Your task to perform on an android device: change alarm snooze length Image 0: 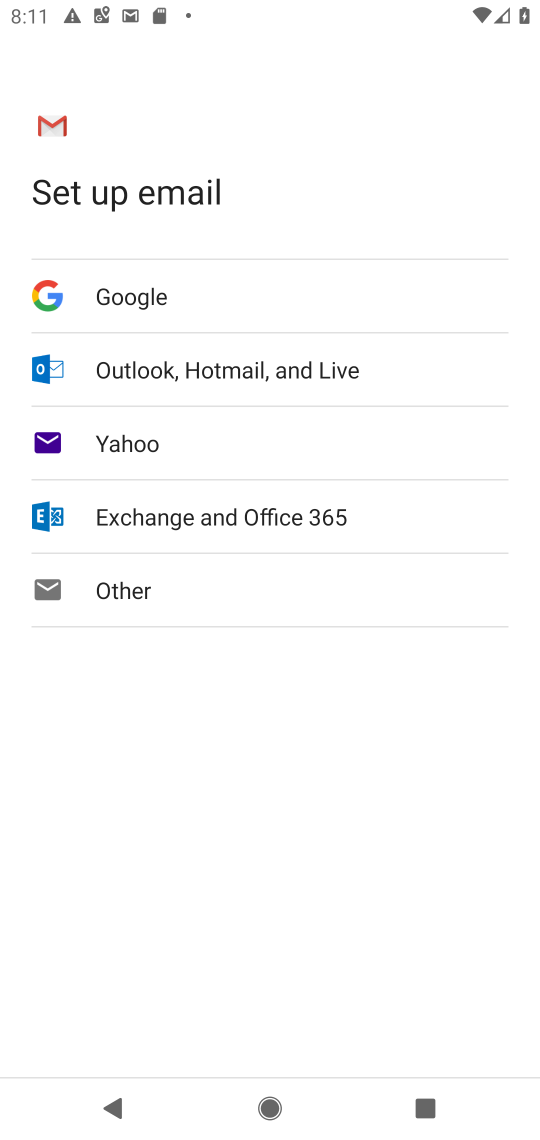
Step 0: press home button
Your task to perform on an android device: change alarm snooze length Image 1: 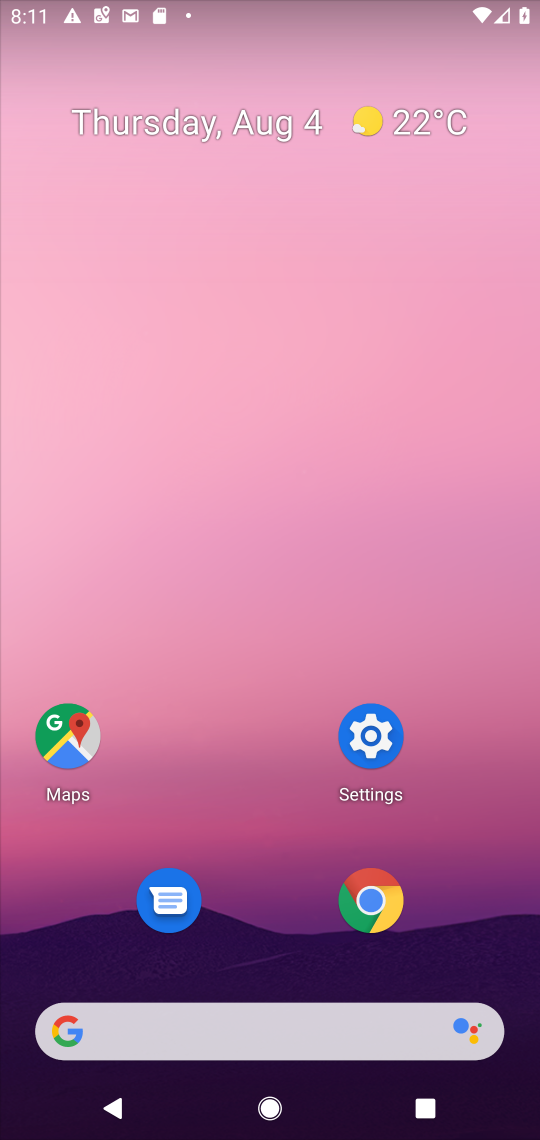
Step 1: drag from (200, 1030) to (436, 137)
Your task to perform on an android device: change alarm snooze length Image 2: 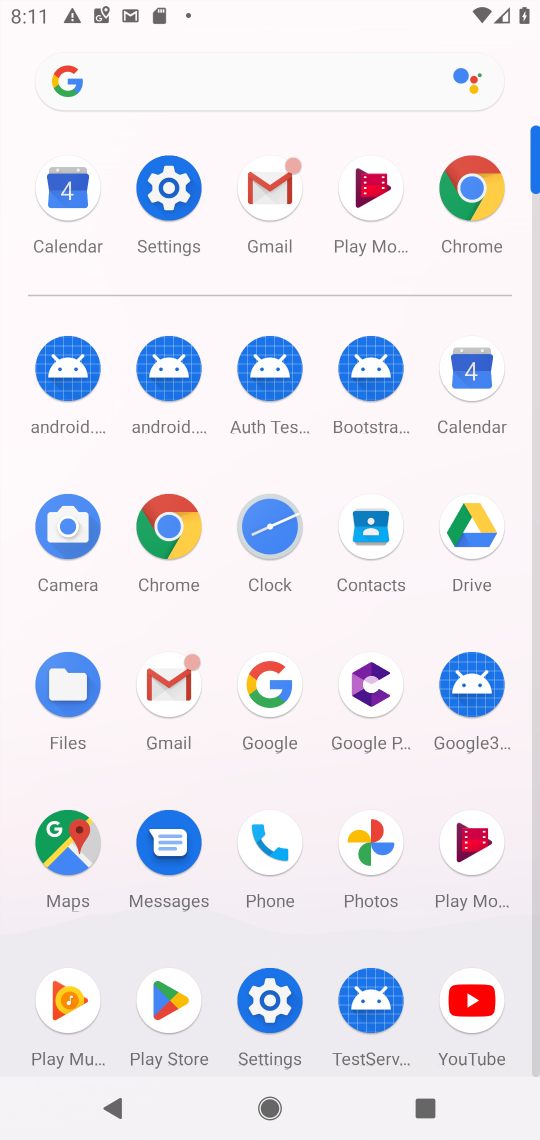
Step 2: click (280, 529)
Your task to perform on an android device: change alarm snooze length Image 3: 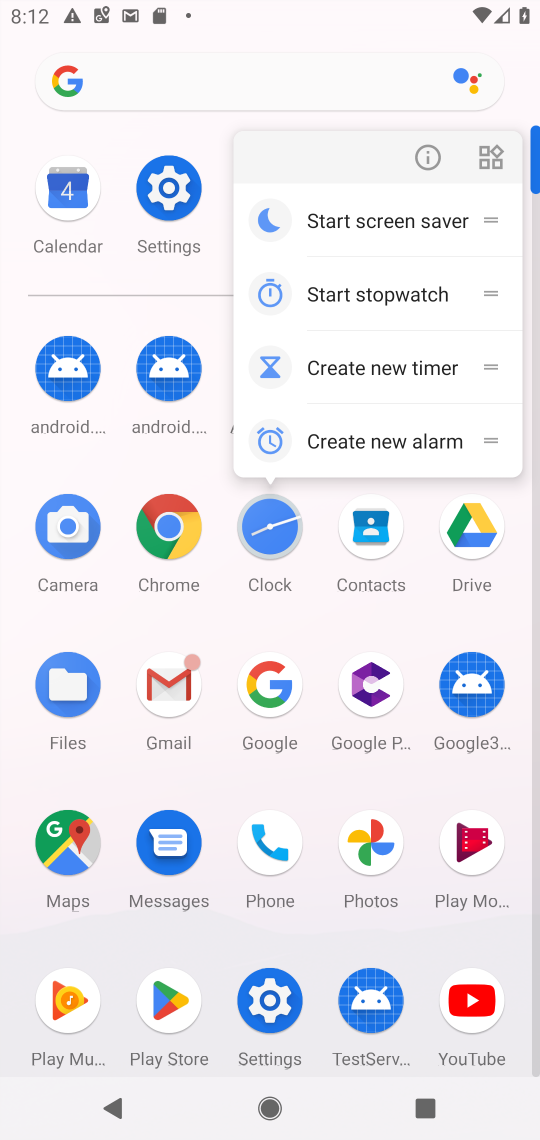
Step 3: click (280, 528)
Your task to perform on an android device: change alarm snooze length Image 4: 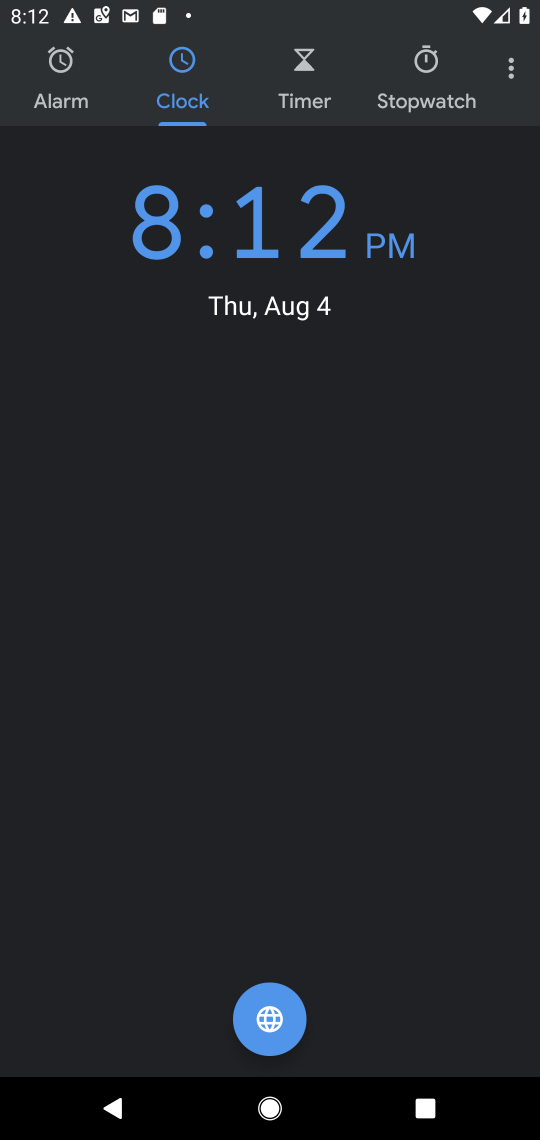
Step 4: click (508, 70)
Your task to perform on an android device: change alarm snooze length Image 5: 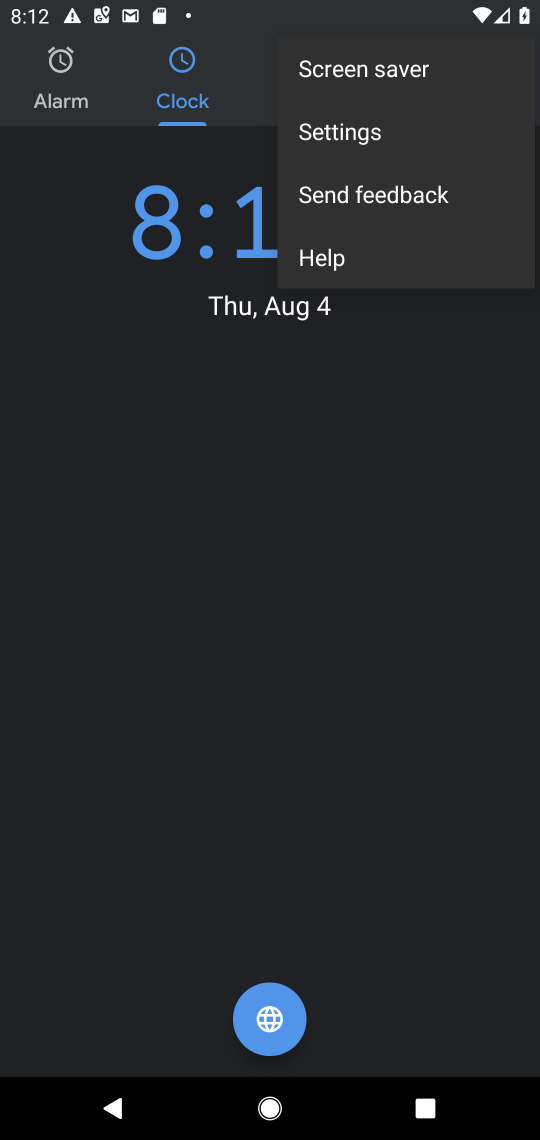
Step 5: click (339, 133)
Your task to perform on an android device: change alarm snooze length Image 6: 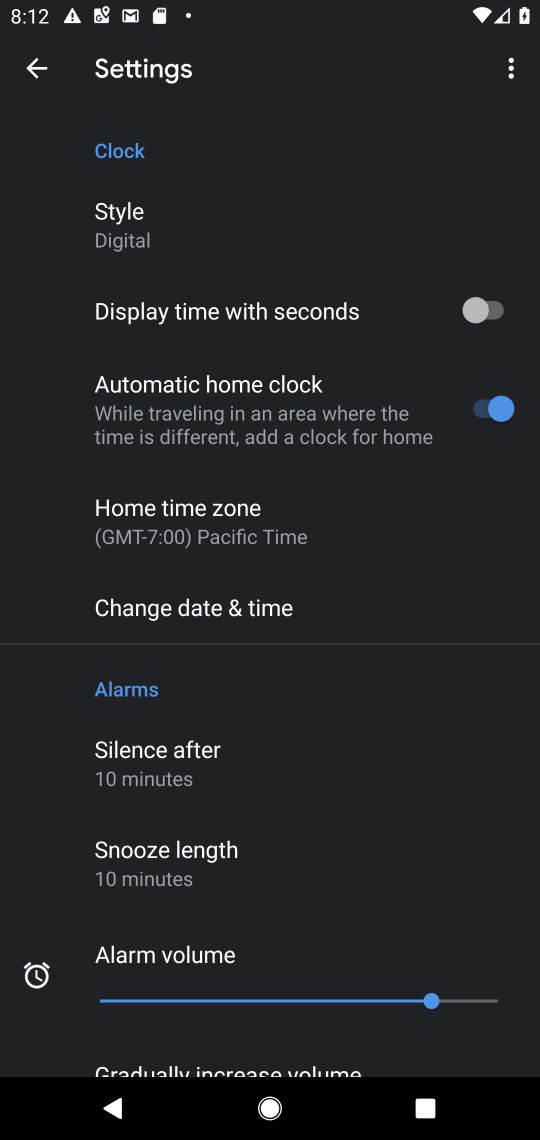
Step 6: click (185, 871)
Your task to perform on an android device: change alarm snooze length Image 7: 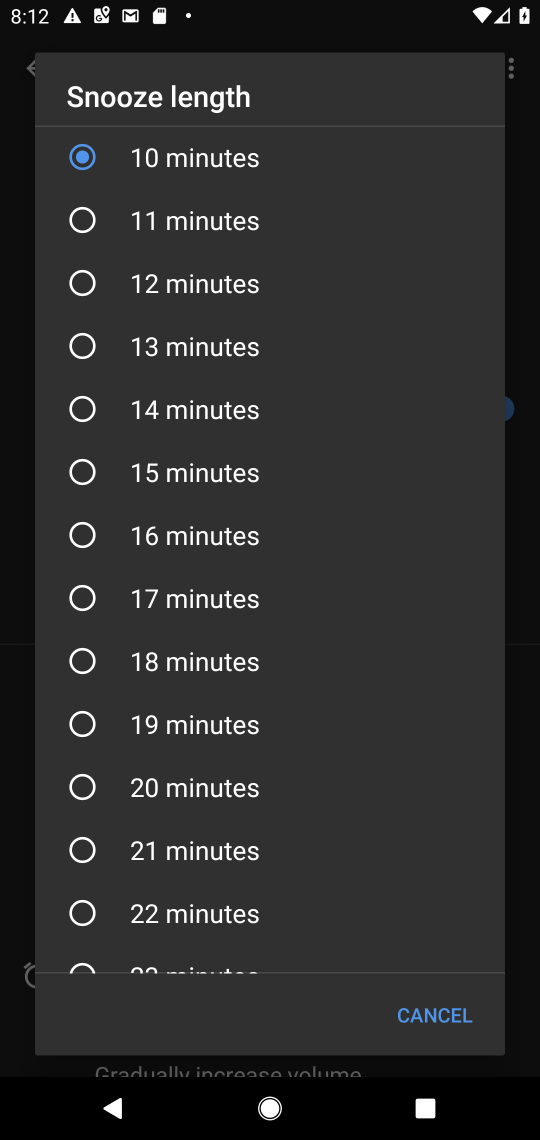
Step 7: click (86, 475)
Your task to perform on an android device: change alarm snooze length Image 8: 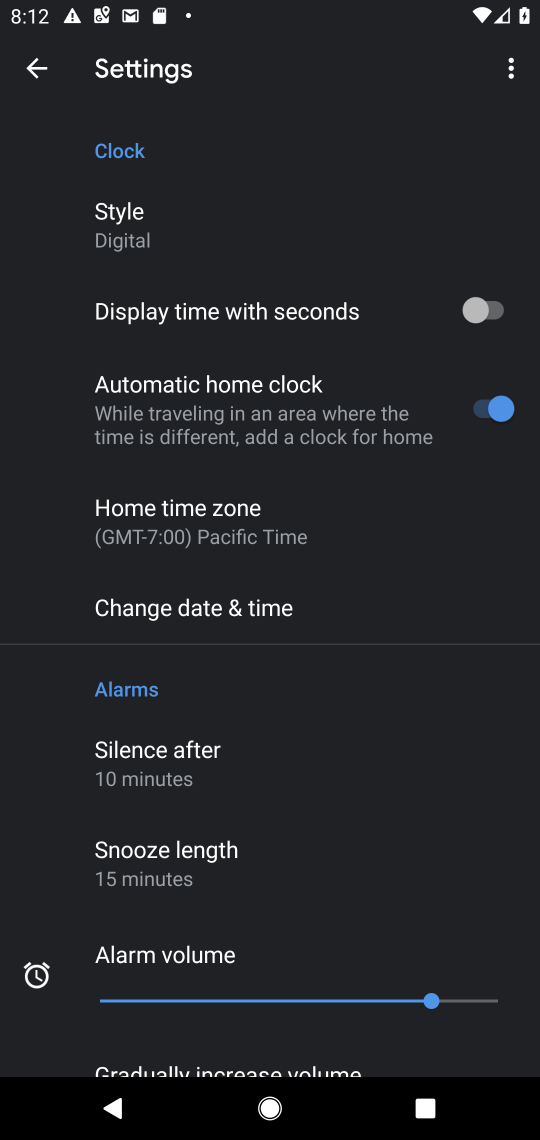
Step 8: task complete